Your task to perform on an android device: all mails in gmail Image 0: 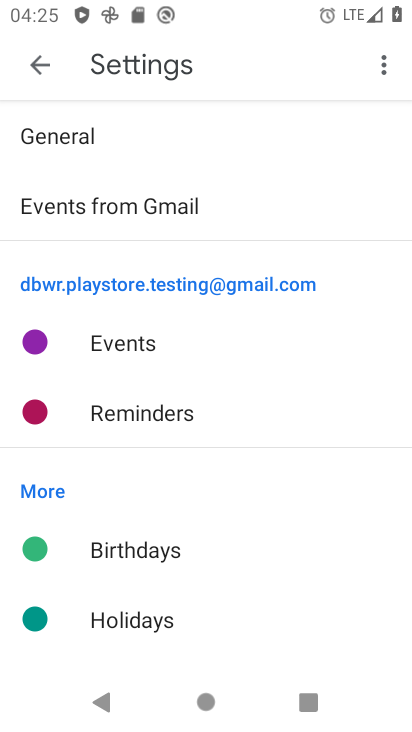
Step 0: press home button
Your task to perform on an android device: all mails in gmail Image 1: 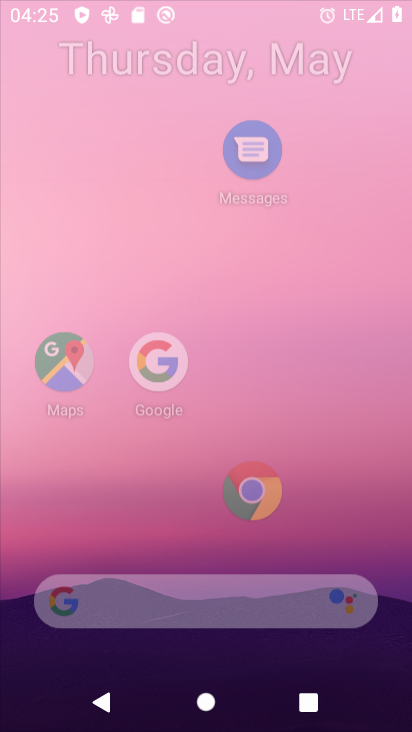
Step 1: drag from (247, 568) to (321, 1)
Your task to perform on an android device: all mails in gmail Image 2: 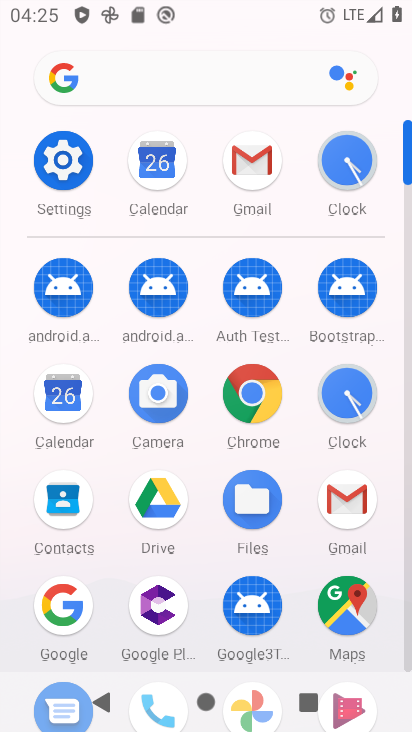
Step 2: click (353, 464)
Your task to perform on an android device: all mails in gmail Image 3: 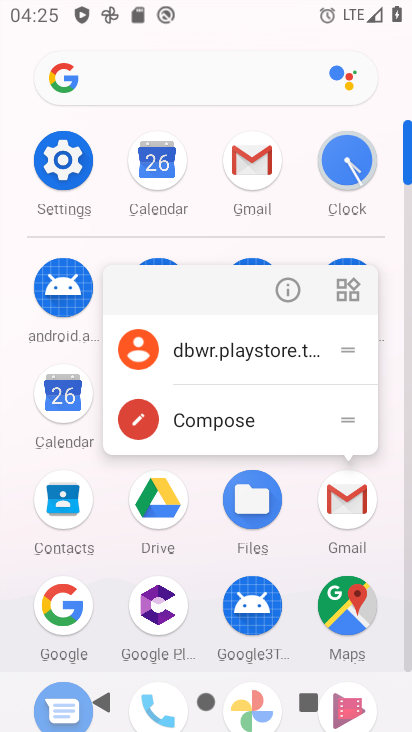
Step 3: click (234, 359)
Your task to perform on an android device: all mails in gmail Image 4: 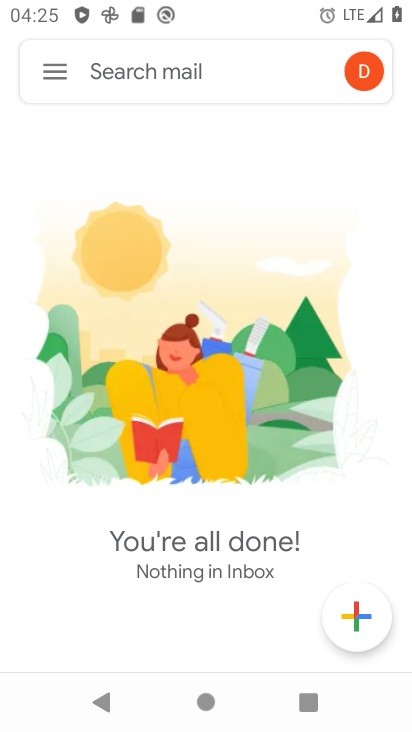
Step 4: click (48, 57)
Your task to perform on an android device: all mails in gmail Image 5: 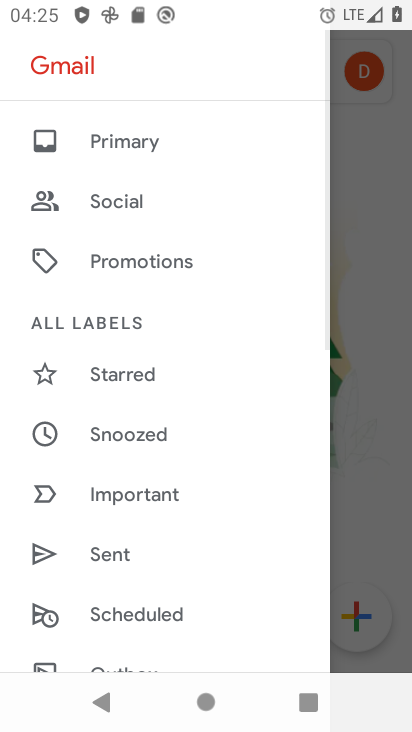
Step 5: drag from (163, 480) to (211, 143)
Your task to perform on an android device: all mails in gmail Image 6: 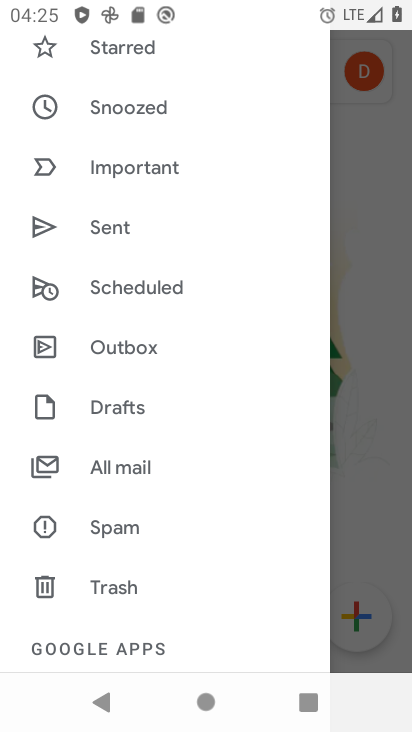
Step 6: click (127, 472)
Your task to perform on an android device: all mails in gmail Image 7: 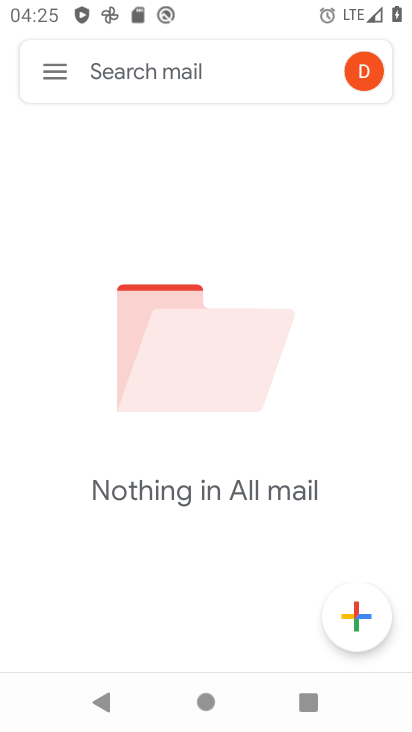
Step 7: task complete